Your task to perform on an android device: set an alarm Image 0: 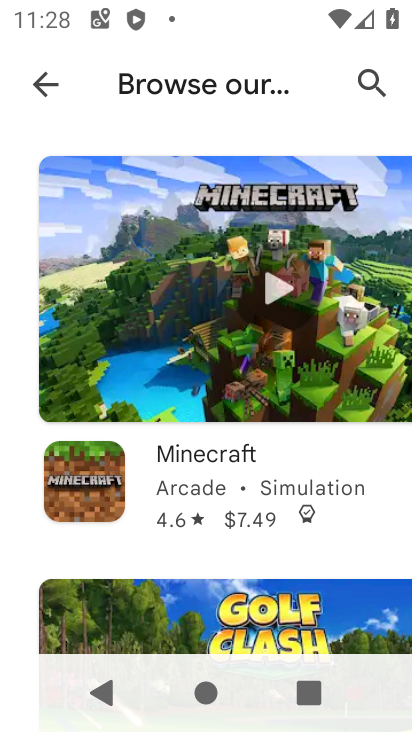
Step 0: press home button
Your task to perform on an android device: set an alarm Image 1: 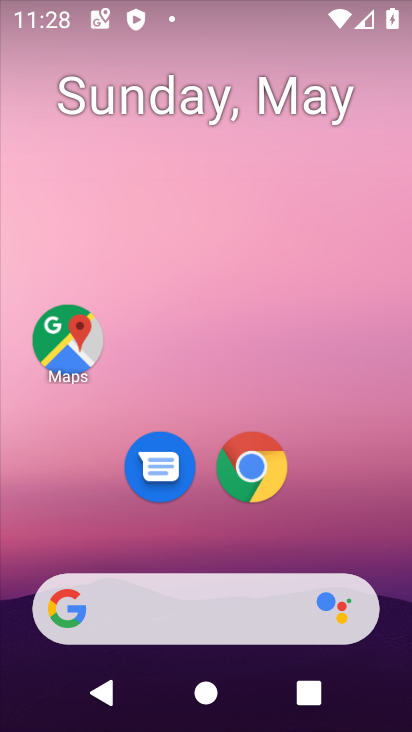
Step 1: drag from (387, 560) to (403, 13)
Your task to perform on an android device: set an alarm Image 2: 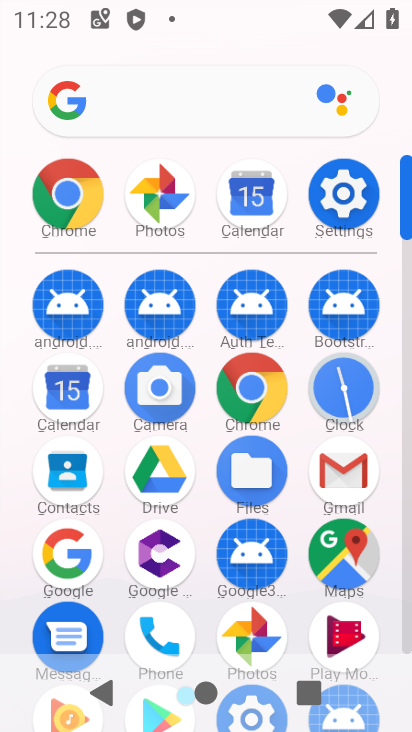
Step 2: click (338, 385)
Your task to perform on an android device: set an alarm Image 3: 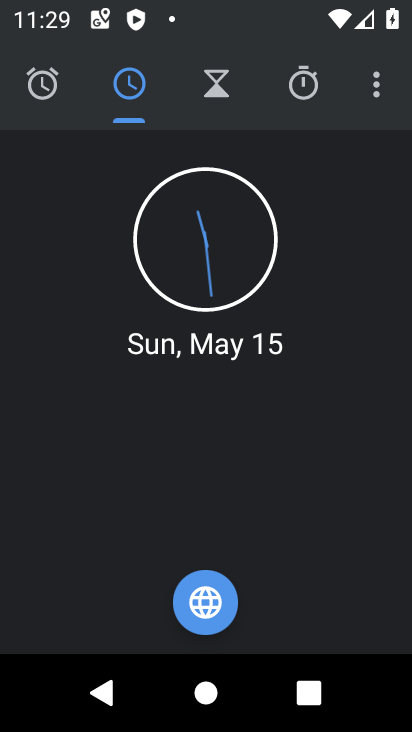
Step 3: click (52, 86)
Your task to perform on an android device: set an alarm Image 4: 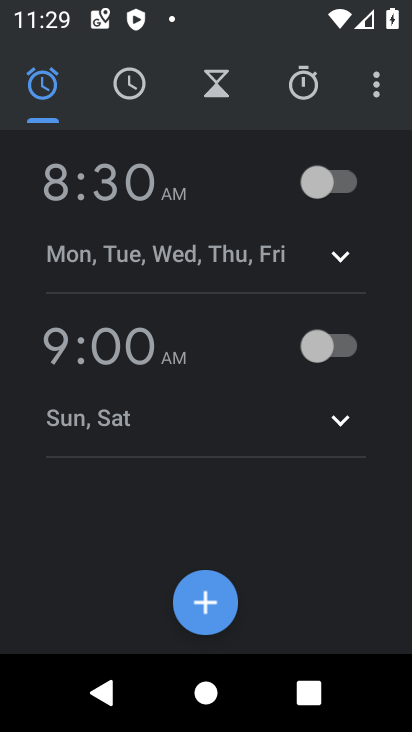
Step 4: click (206, 607)
Your task to perform on an android device: set an alarm Image 5: 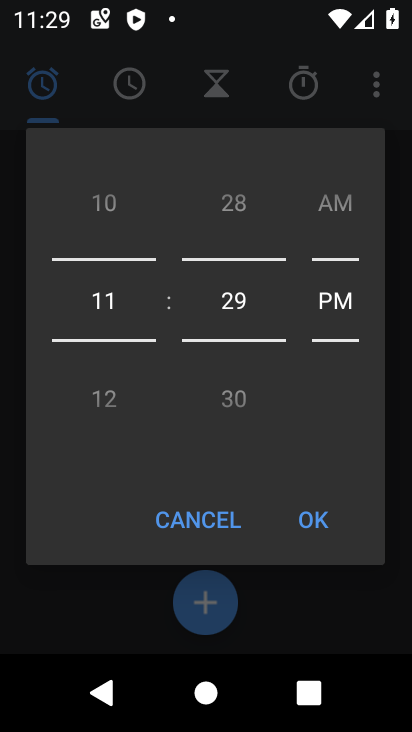
Step 5: drag from (107, 254) to (92, 533)
Your task to perform on an android device: set an alarm Image 6: 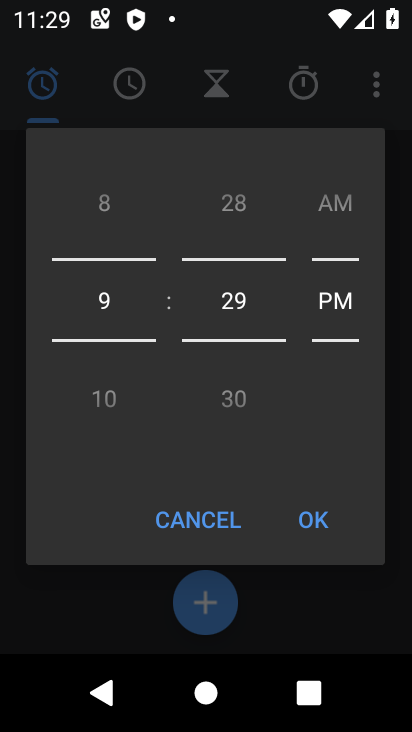
Step 6: drag from (105, 260) to (84, 631)
Your task to perform on an android device: set an alarm Image 7: 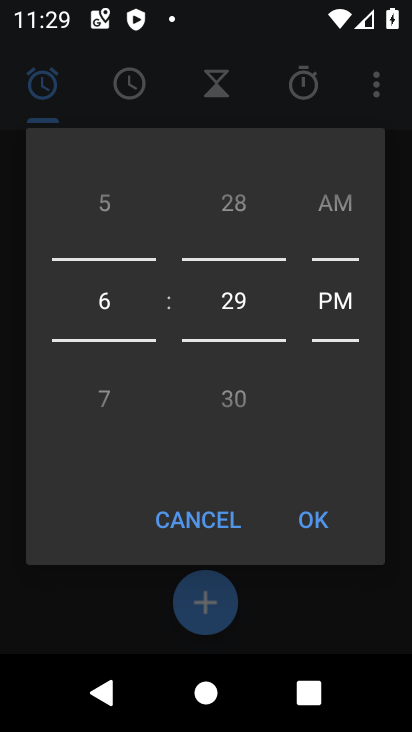
Step 7: drag from (239, 305) to (236, 259)
Your task to perform on an android device: set an alarm Image 8: 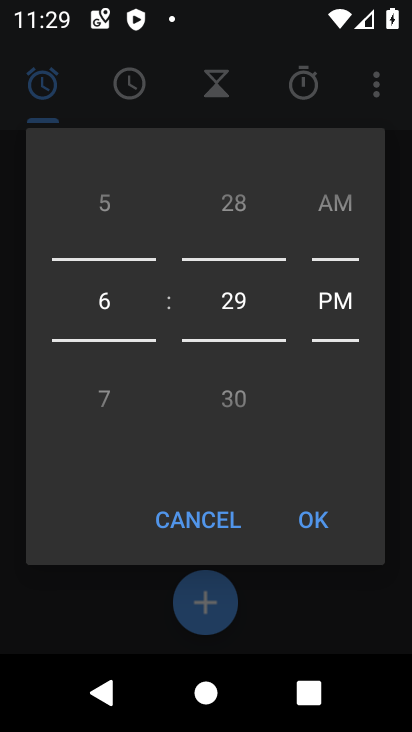
Step 8: drag from (229, 303) to (241, 185)
Your task to perform on an android device: set an alarm Image 9: 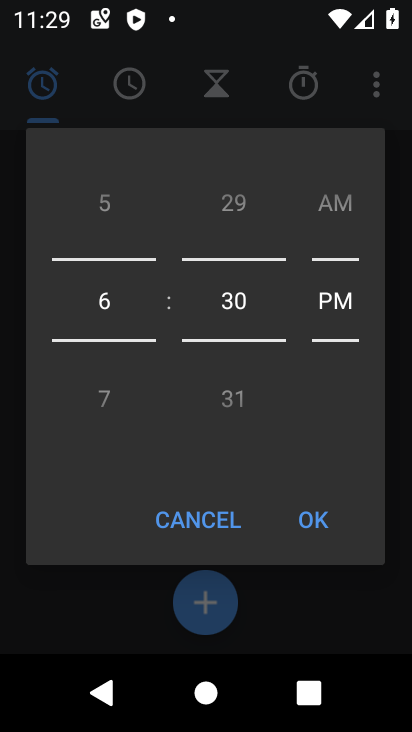
Step 9: drag from (331, 317) to (339, 437)
Your task to perform on an android device: set an alarm Image 10: 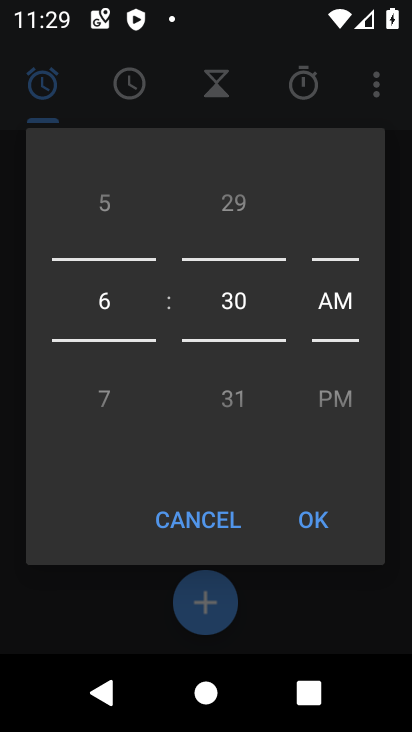
Step 10: click (317, 530)
Your task to perform on an android device: set an alarm Image 11: 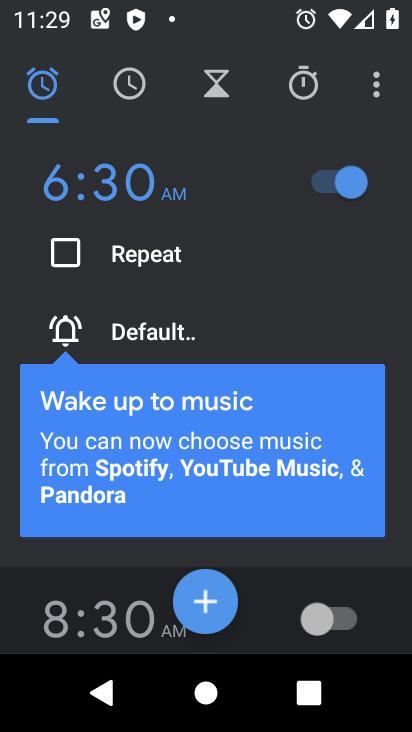
Step 11: task complete